Your task to perform on an android device: Search for vegetarian restaurants on Maps Image 0: 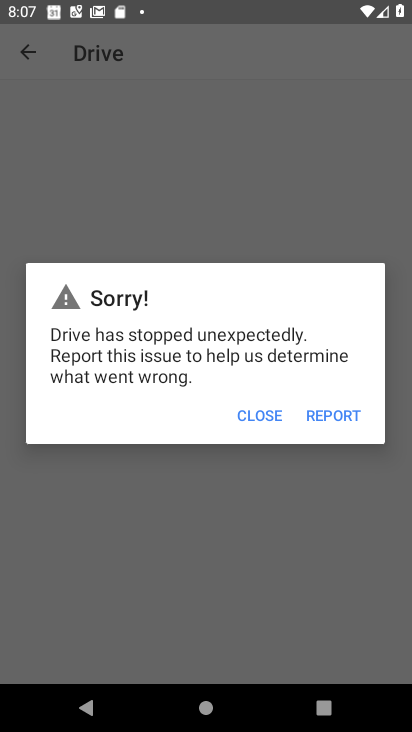
Step 0: click (273, 423)
Your task to perform on an android device: Search for vegetarian restaurants on Maps Image 1: 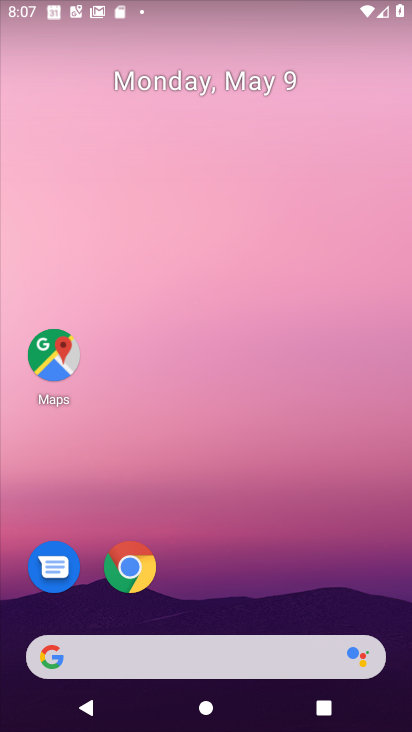
Step 1: press home button
Your task to perform on an android device: Search for vegetarian restaurants on Maps Image 2: 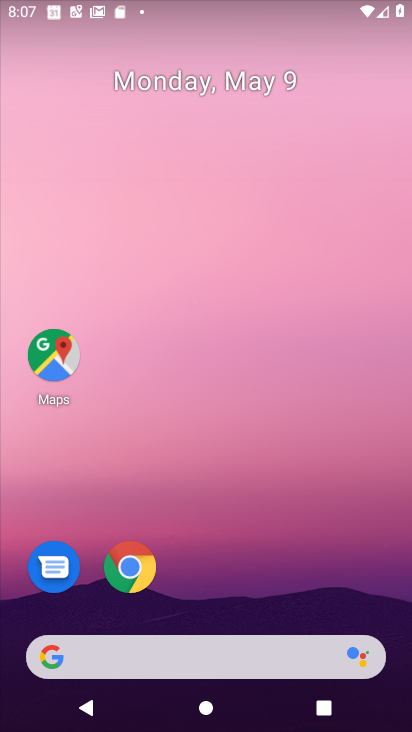
Step 2: drag from (211, 403) to (329, 130)
Your task to perform on an android device: Search for vegetarian restaurants on Maps Image 3: 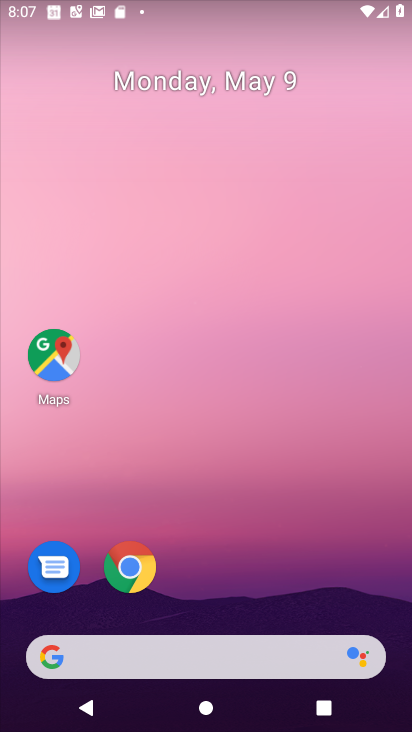
Step 3: drag from (197, 592) to (325, 114)
Your task to perform on an android device: Search for vegetarian restaurants on Maps Image 4: 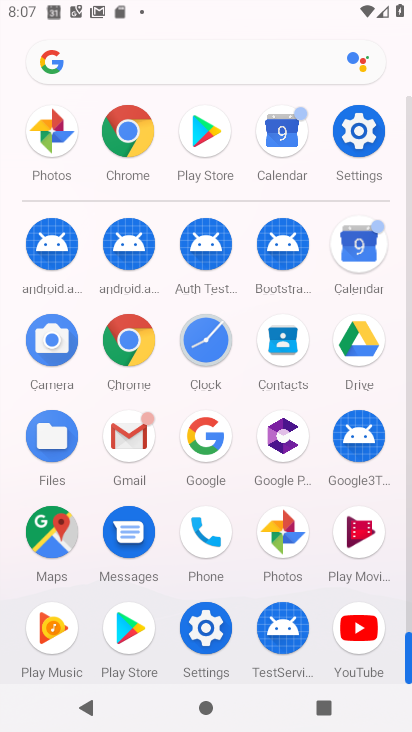
Step 4: click (23, 524)
Your task to perform on an android device: Search for vegetarian restaurants on Maps Image 5: 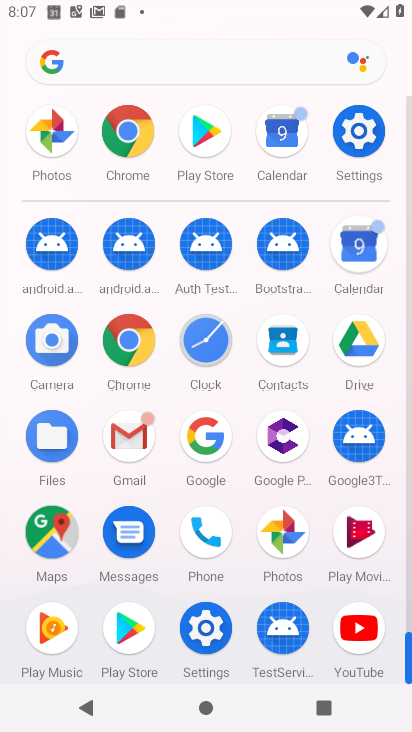
Step 5: click (24, 522)
Your task to perform on an android device: Search for vegetarian restaurants on Maps Image 6: 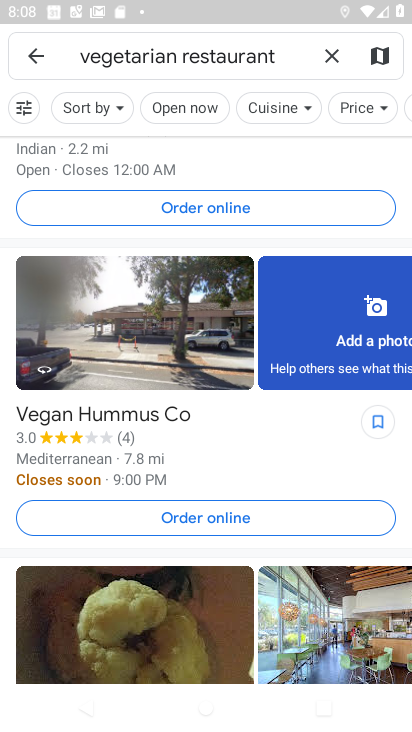
Step 6: task complete